Your task to perform on an android device: toggle wifi Image 0: 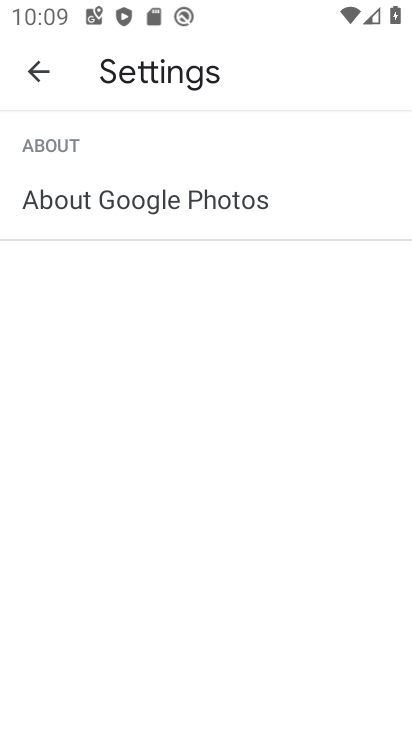
Step 0: press home button
Your task to perform on an android device: toggle wifi Image 1: 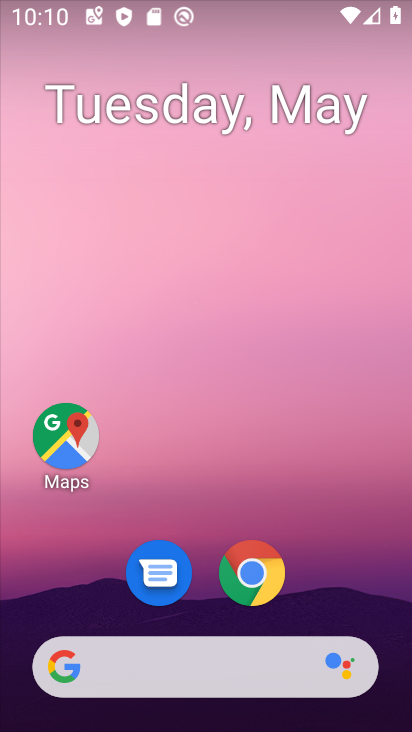
Step 1: drag from (262, 177) to (265, 523)
Your task to perform on an android device: toggle wifi Image 2: 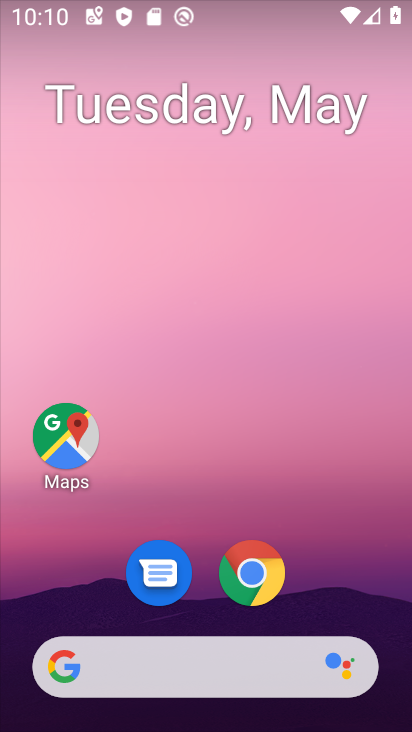
Step 2: drag from (209, 13) to (171, 504)
Your task to perform on an android device: toggle wifi Image 3: 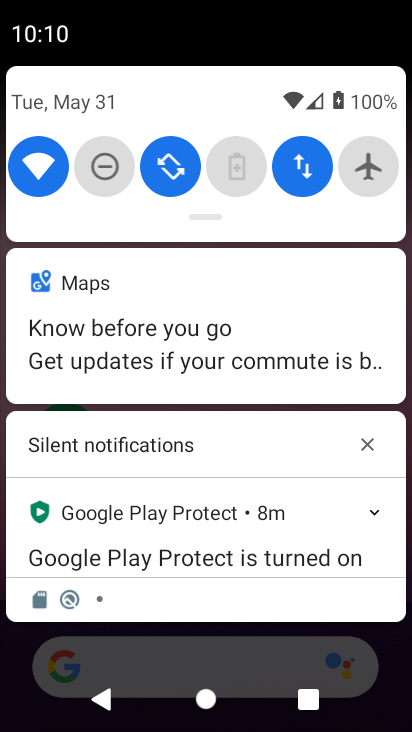
Step 3: drag from (187, 211) to (198, 574)
Your task to perform on an android device: toggle wifi Image 4: 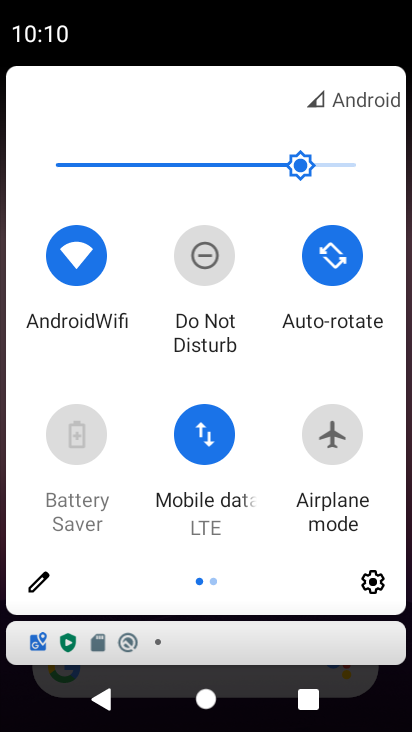
Step 4: click (86, 275)
Your task to perform on an android device: toggle wifi Image 5: 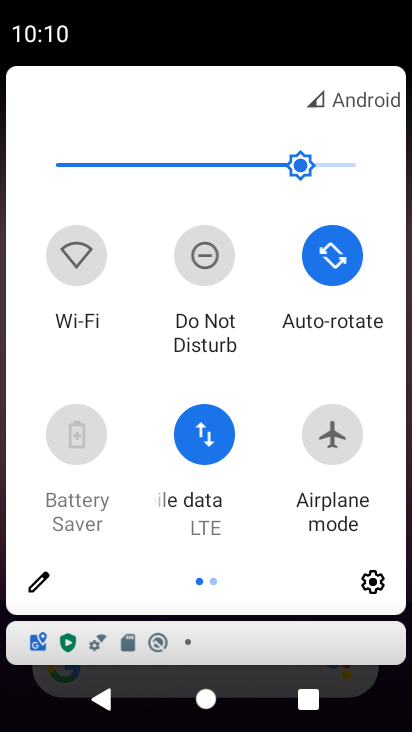
Step 5: task complete